Your task to perform on an android device: Set the phone to "Do not disturb". Image 0: 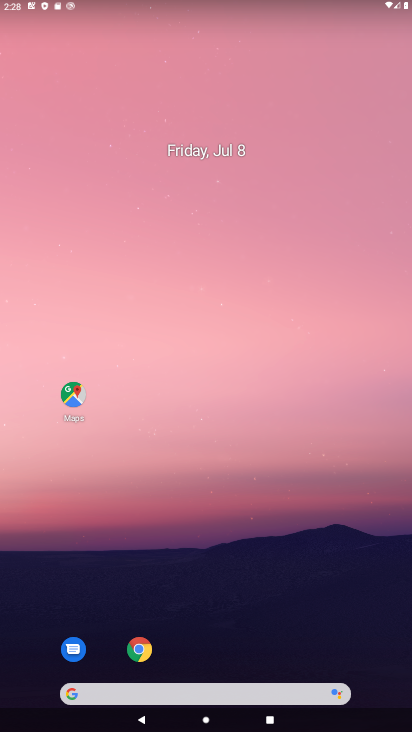
Step 0: drag from (375, 648) to (307, 173)
Your task to perform on an android device: Set the phone to "Do not disturb". Image 1: 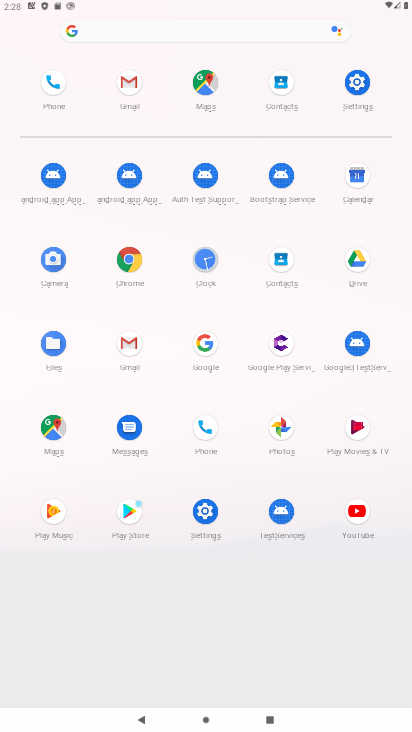
Step 1: click (205, 509)
Your task to perform on an android device: Set the phone to "Do not disturb". Image 2: 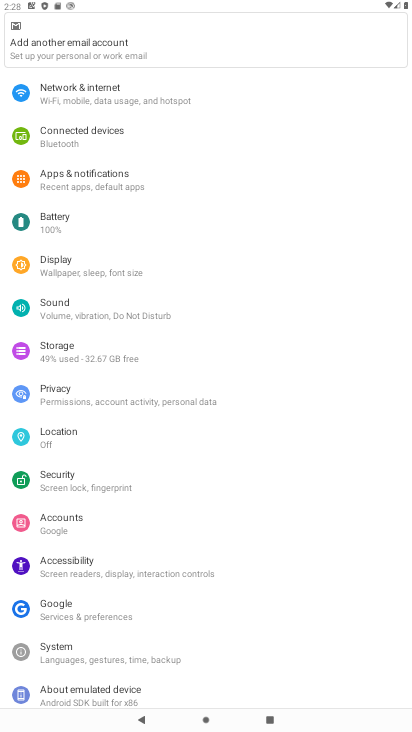
Step 2: click (57, 310)
Your task to perform on an android device: Set the phone to "Do not disturb". Image 3: 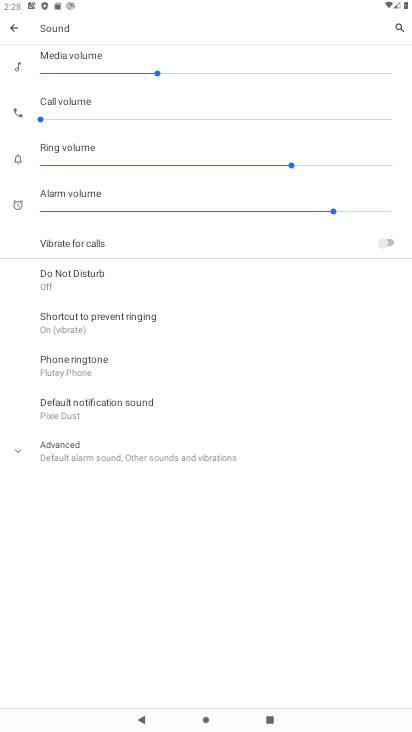
Step 3: click (58, 267)
Your task to perform on an android device: Set the phone to "Do not disturb". Image 4: 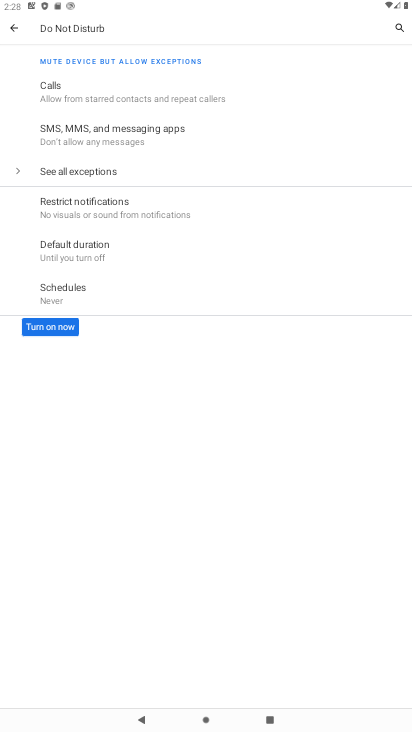
Step 4: click (30, 323)
Your task to perform on an android device: Set the phone to "Do not disturb". Image 5: 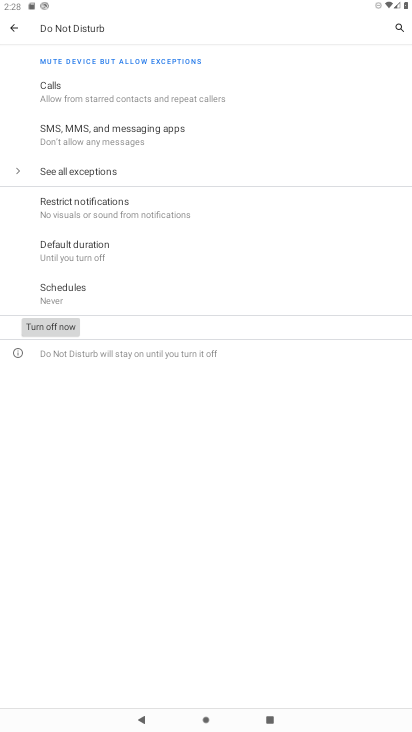
Step 5: task complete